Your task to perform on an android device: See recent photos Image 0: 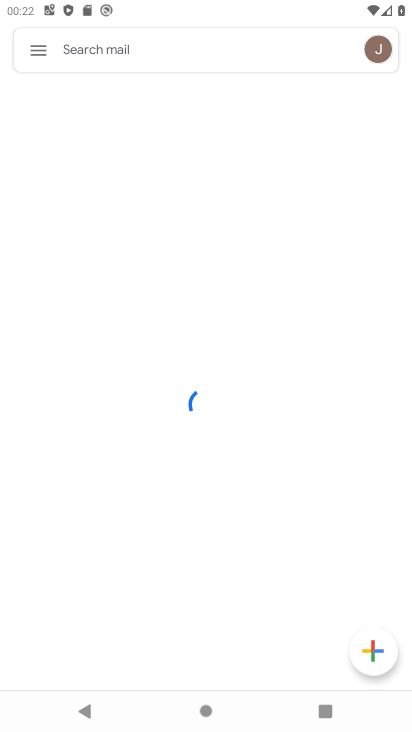
Step 0: press home button
Your task to perform on an android device: See recent photos Image 1: 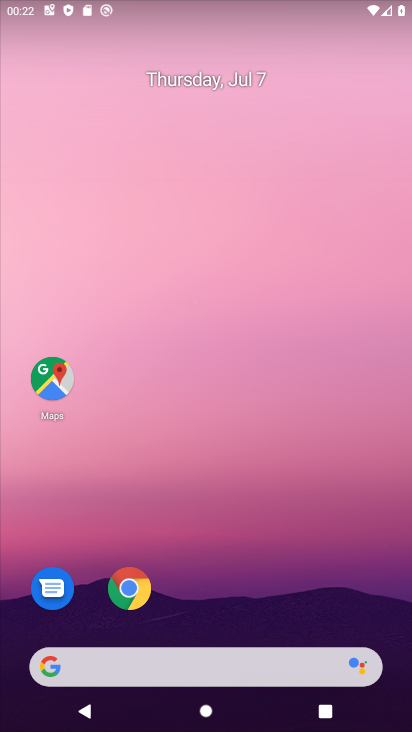
Step 1: drag from (231, 676) to (198, 162)
Your task to perform on an android device: See recent photos Image 2: 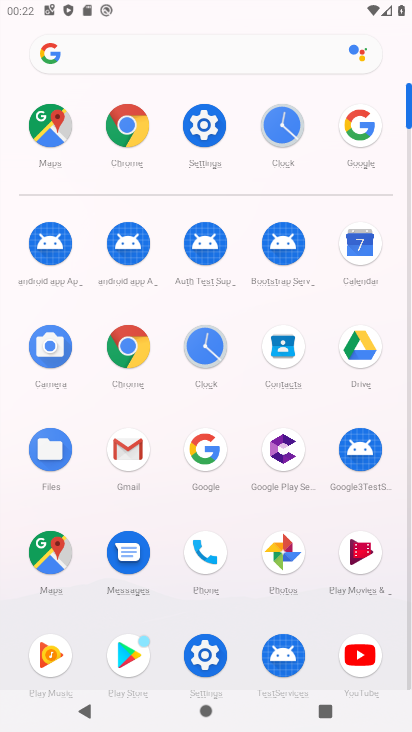
Step 2: click (282, 549)
Your task to perform on an android device: See recent photos Image 3: 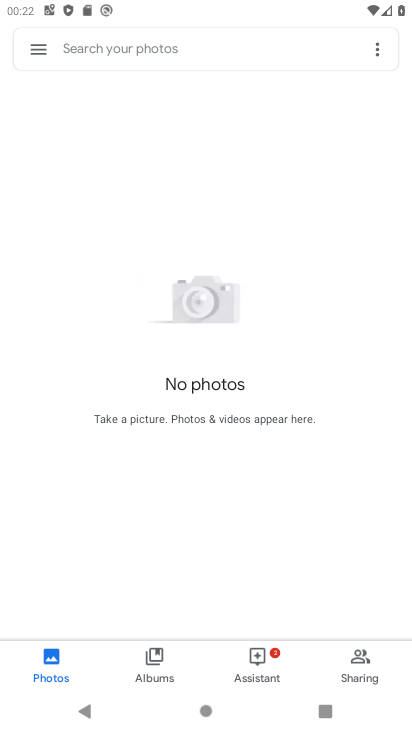
Step 3: task complete